Your task to perform on an android device: Search for pizza restaurants on Maps Image 0: 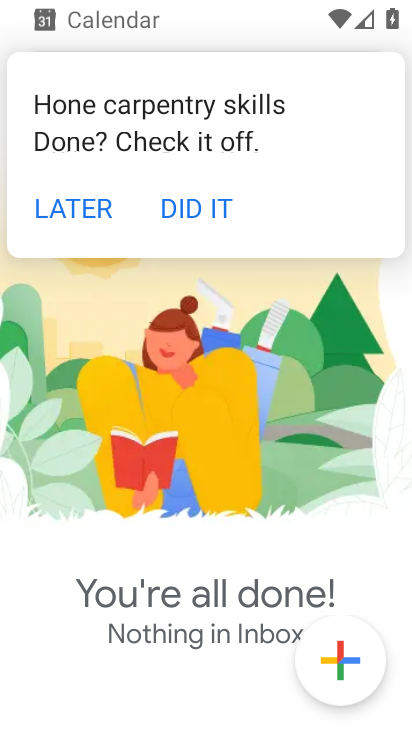
Step 0: press home button
Your task to perform on an android device: Search for pizza restaurants on Maps Image 1: 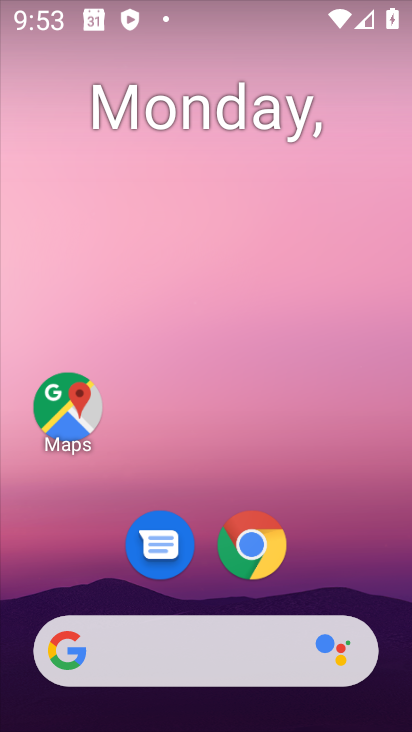
Step 1: click (64, 402)
Your task to perform on an android device: Search for pizza restaurants on Maps Image 2: 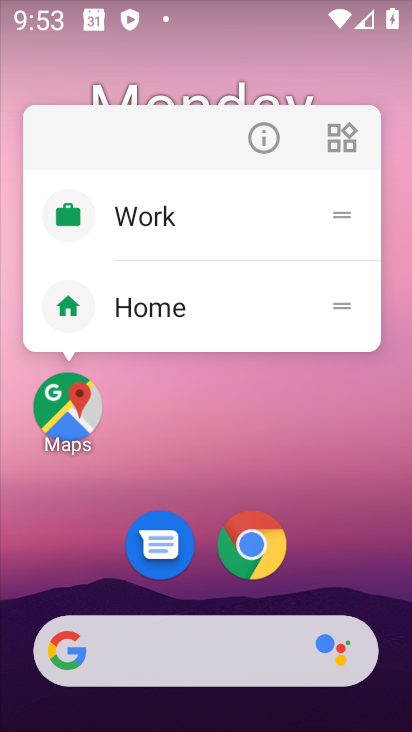
Step 2: click (62, 401)
Your task to perform on an android device: Search for pizza restaurants on Maps Image 3: 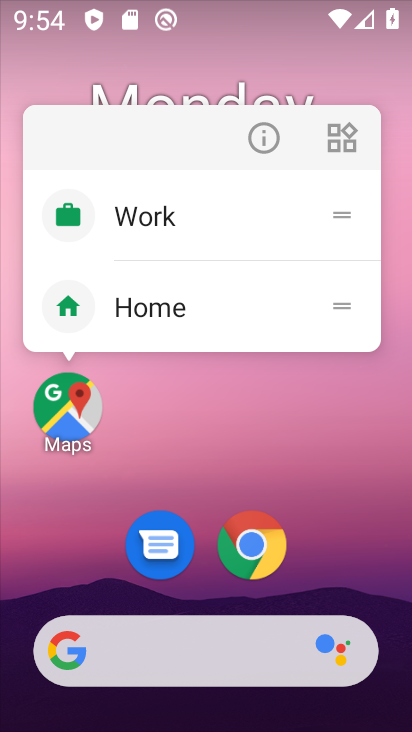
Step 3: click (61, 397)
Your task to perform on an android device: Search for pizza restaurants on Maps Image 4: 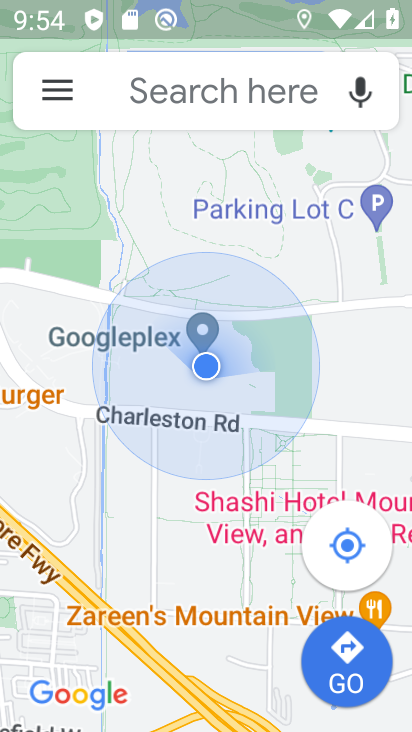
Step 4: click (203, 81)
Your task to perform on an android device: Search for pizza restaurants on Maps Image 5: 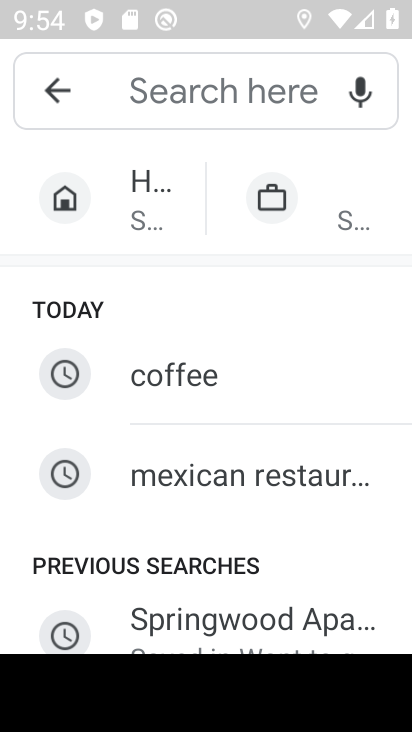
Step 5: drag from (2, 599) to (150, 125)
Your task to perform on an android device: Search for pizza restaurants on Maps Image 6: 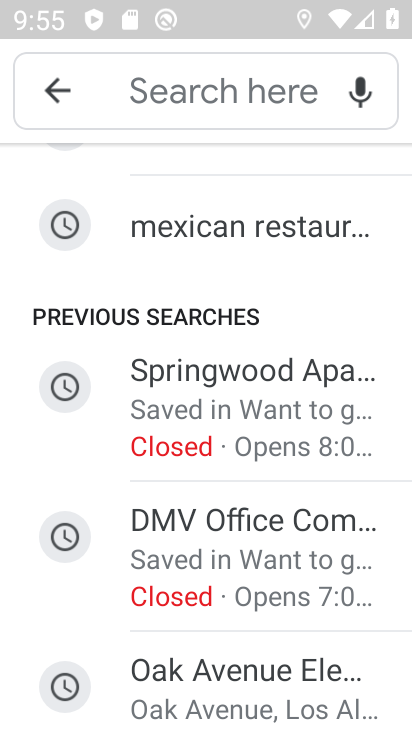
Step 6: drag from (1, 655) to (150, 218)
Your task to perform on an android device: Search for pizza restaurants on Maps Image 7: 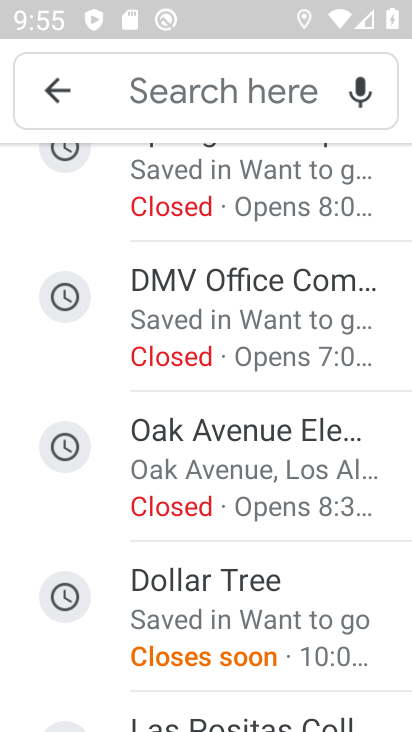
Step 7: drag from (361, 213) to (293, 728)
Your task to perform on an android device: Search for pizza restaurants on Maps Image 8: 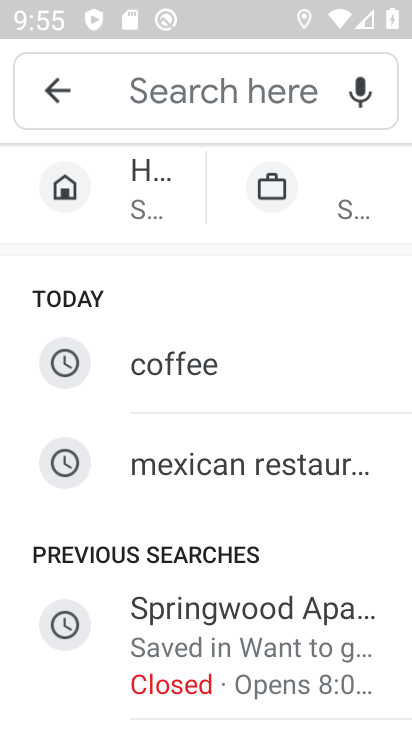
Step 8: click (178, 84)
Your task to perform on an android device: Search for pizza restaurants on Maps Image 9: 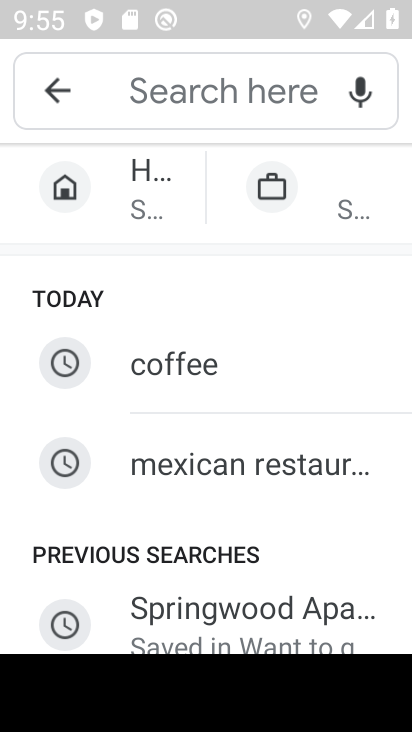
Step 9: type "pizza restaurants"
Your task to perform on an android device: Search for pizza restaurants on Maps Image 10: 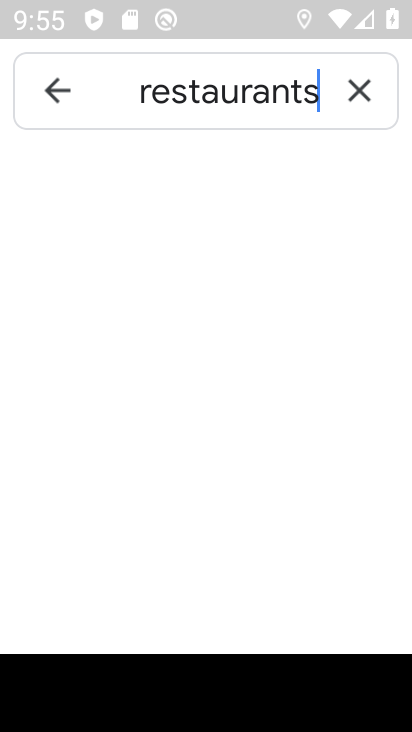
Step 10: type ""
Your task to perform on an android device: Search for pizza restaurants on Maps Image 11: 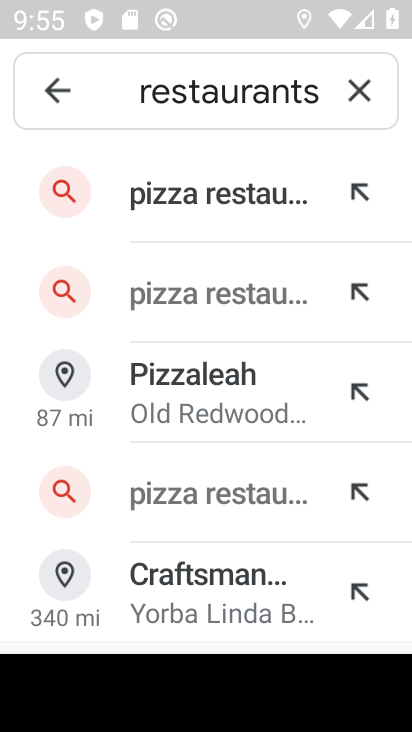
Step 11: click (180, 200)
Your task to perform on an android device: Search for pizza restaurants on Maps Image 12: 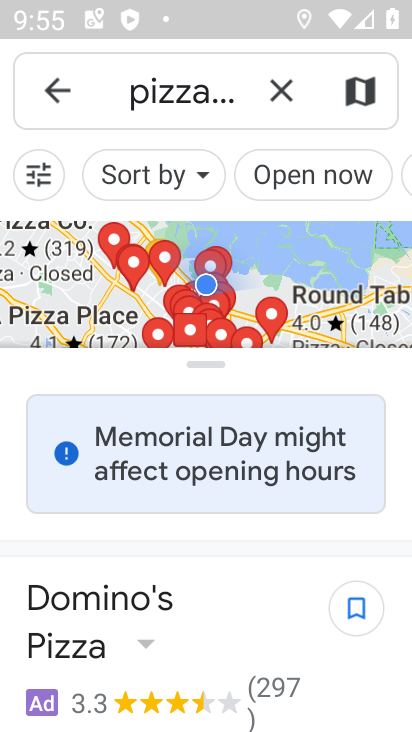
Step 12: task complete